Your task to perform on an android device: turn off translation in the chrome app Image 0: 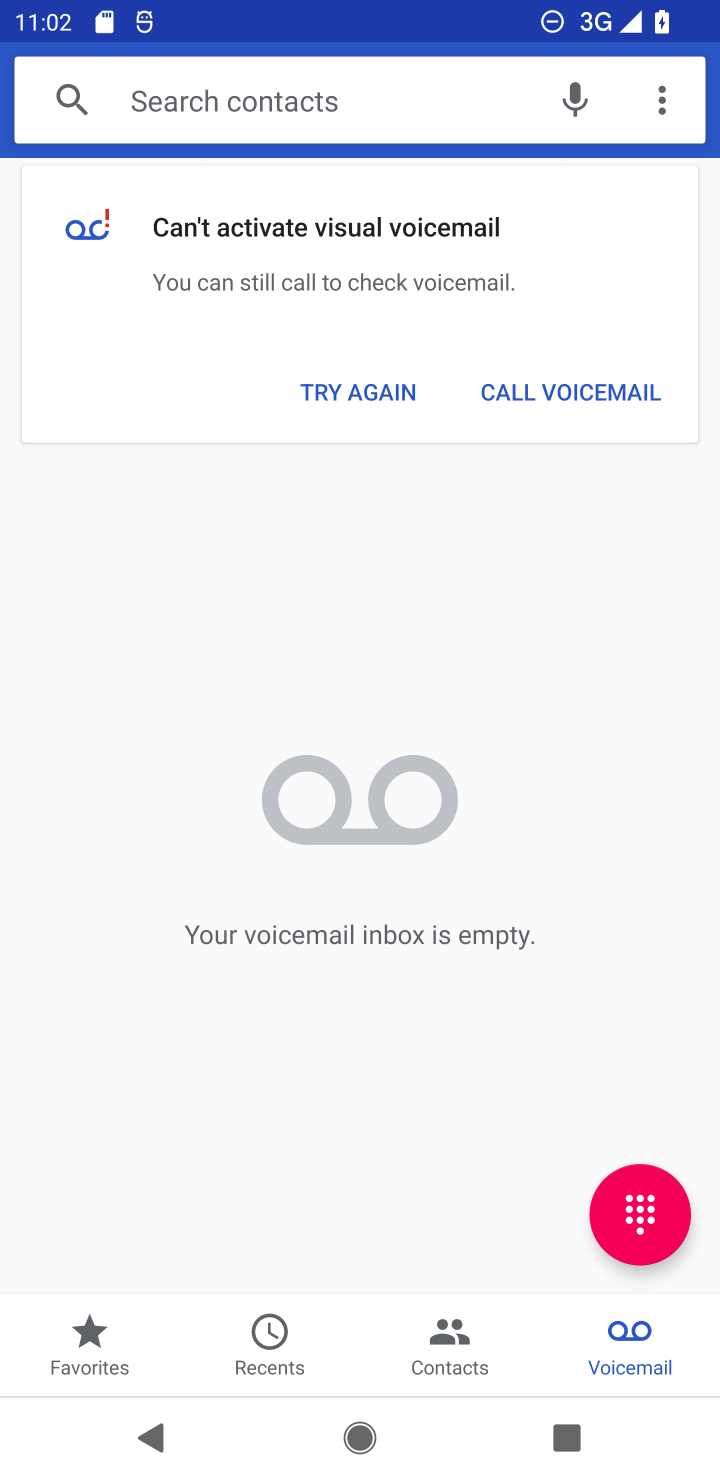
Step 0: press home button
Your task to perform on an android device: turn off translation in the chrome app Image 1: 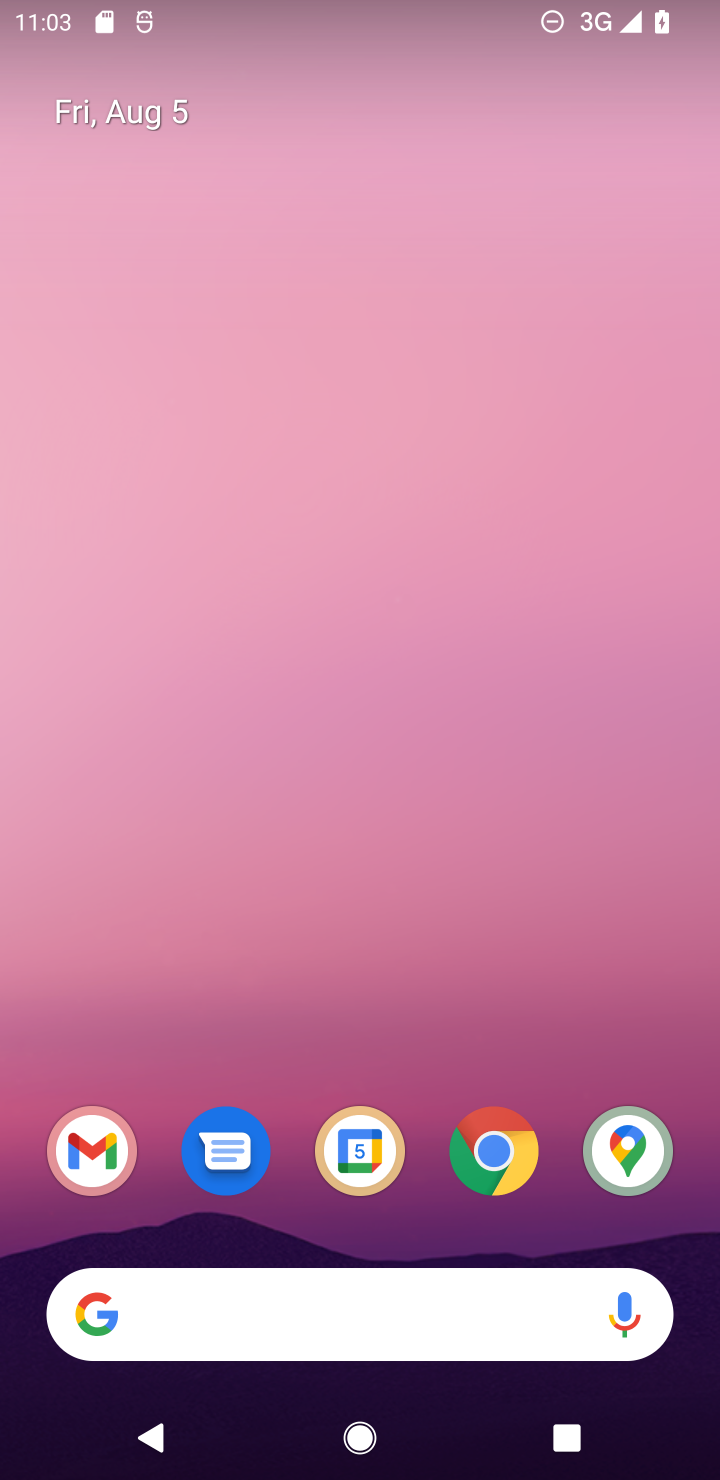
Step 1: click (491, 1156)
Your task to perform on an android device: turn off translation in the chrome app Image 2: 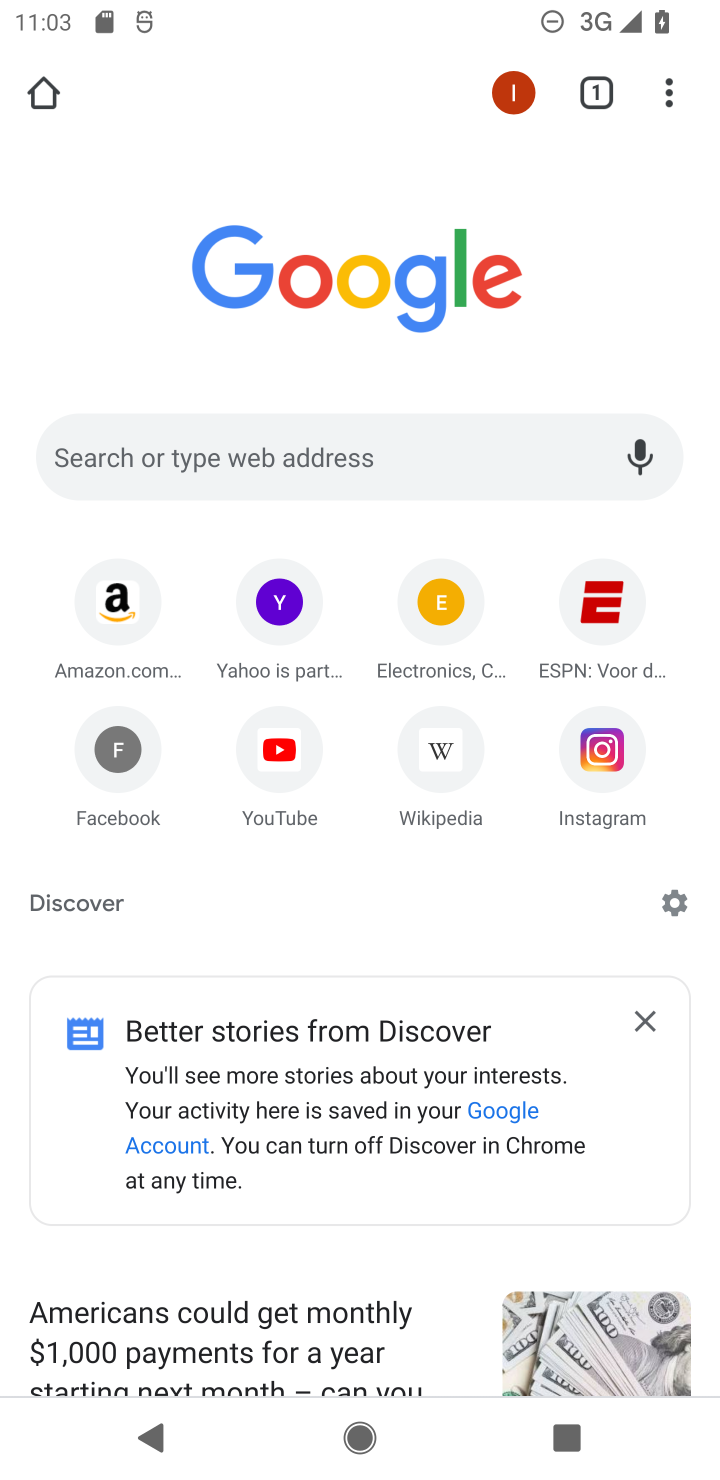
Step 2: click (677, 93)
Your task to perform on an android device: turn off translation in the chrome app Image 3: 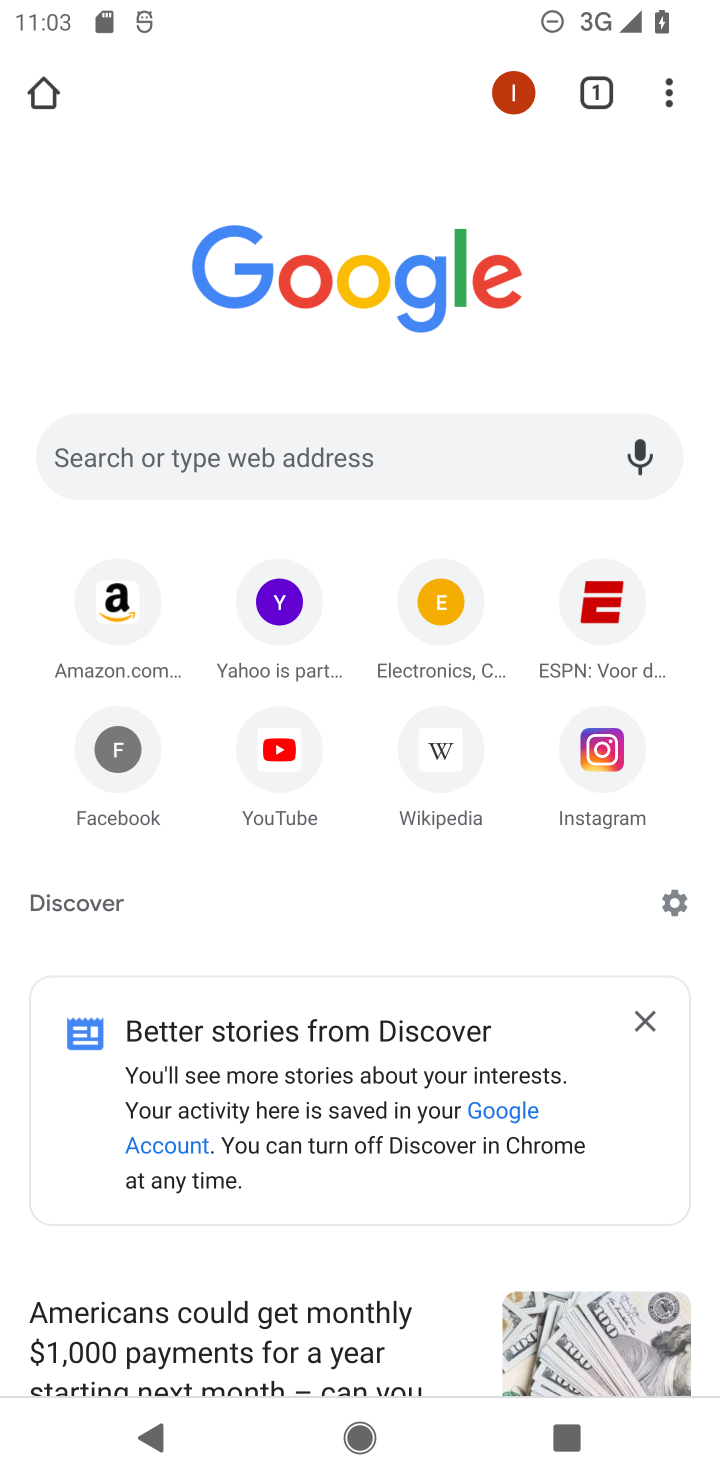
Step 3: click (677, 93)
Your task to perform on an android device: turn off translation in the chrome app Image 4: 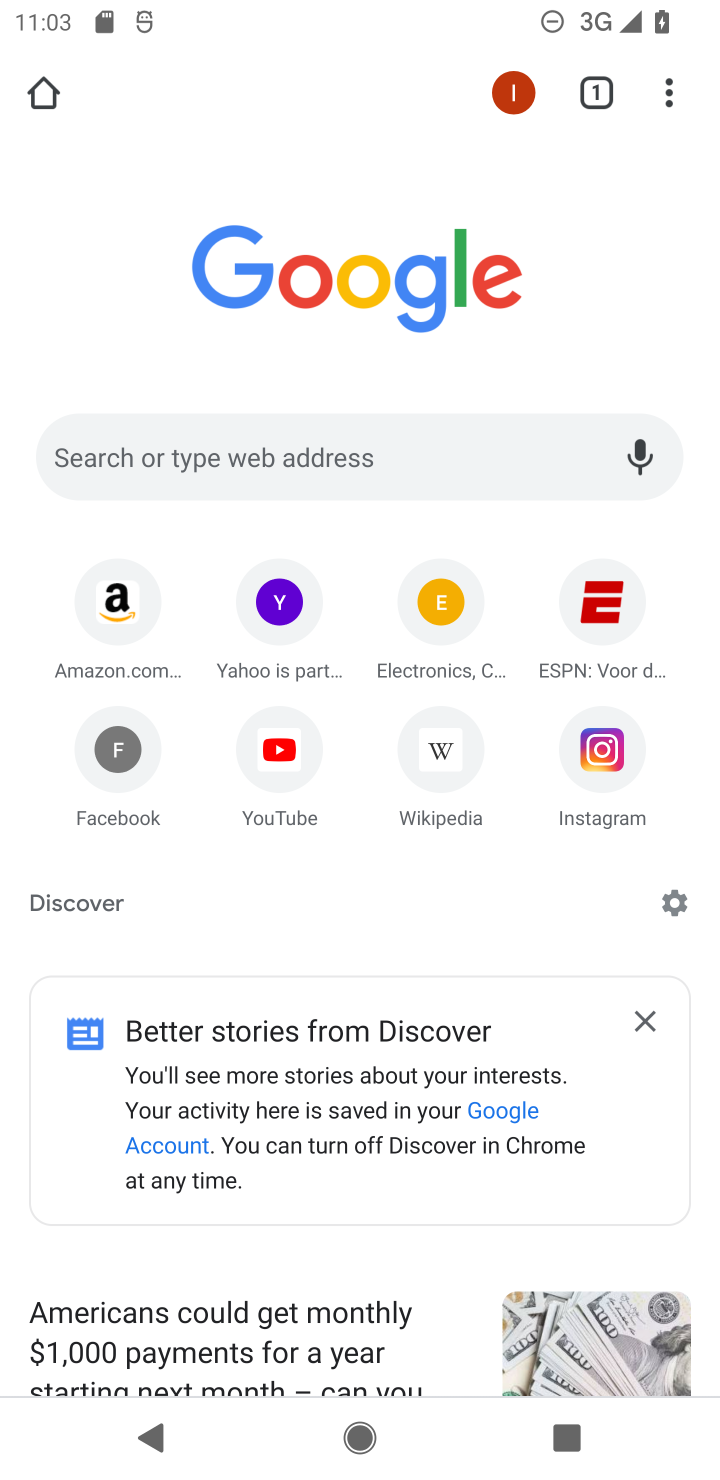
Step 4: click (666, 98)
Your task to perform on an android device: turn off translation in the chrome app Image 5: 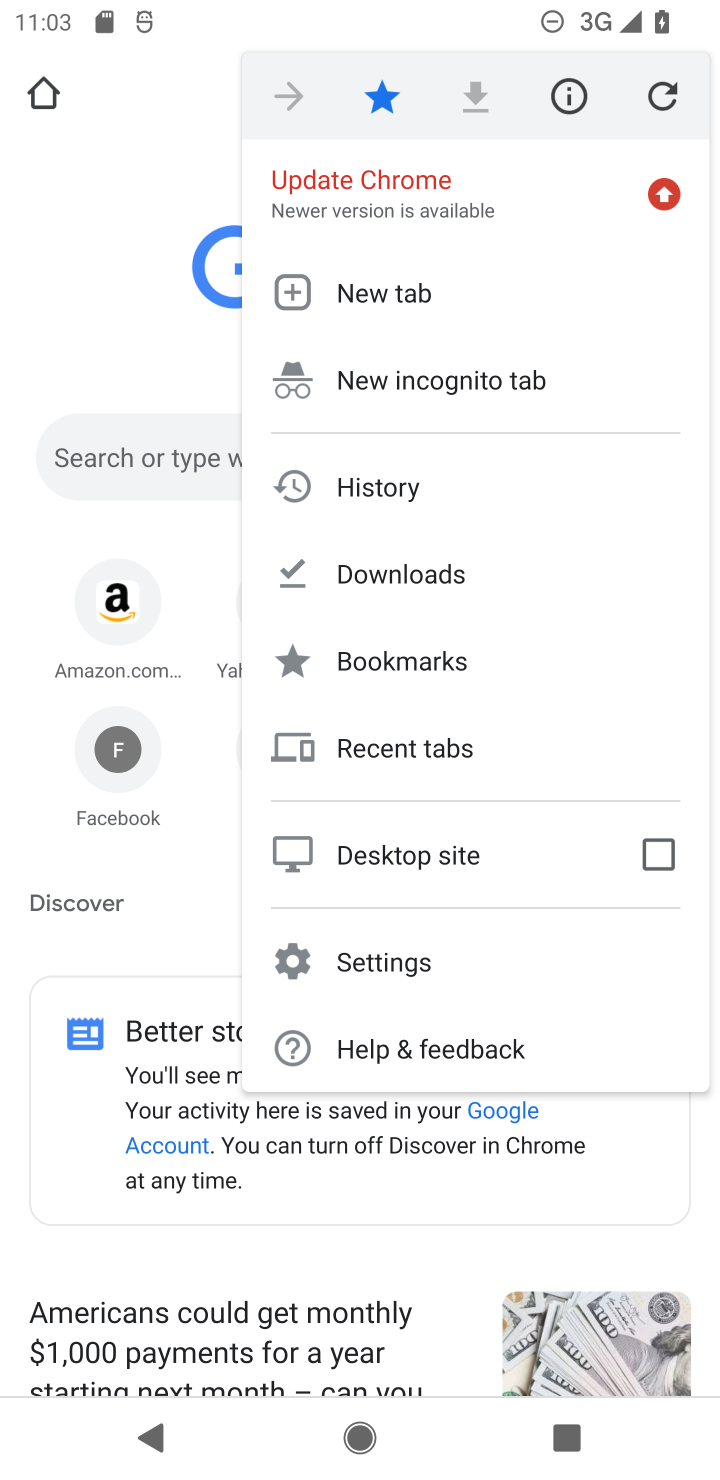
Step 5: click (360, 977)
Your task to perform on an android device: turn off translation in the chrome app Image 6: 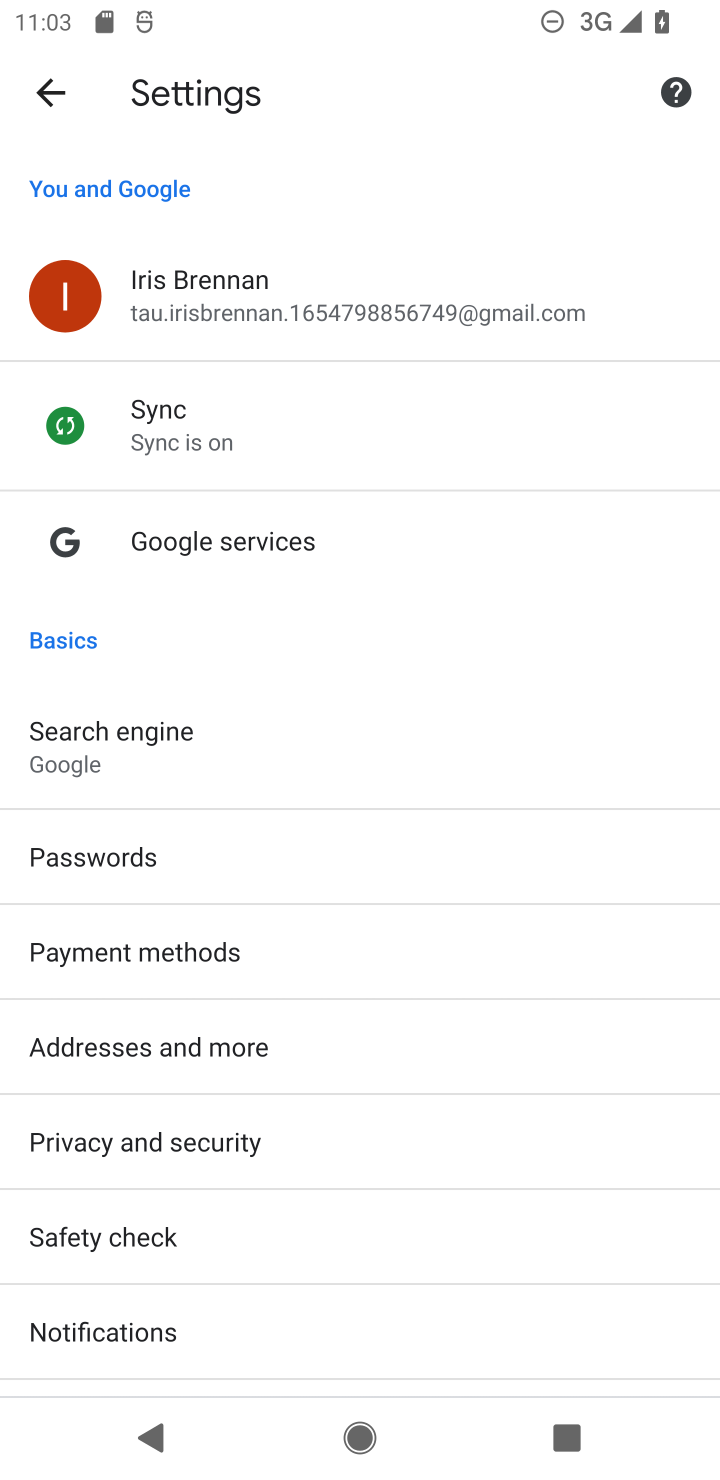
Step 6: drag from (190, 1196) to (221, 708)
Your task to perform on an android device: turn off translation in the chrome app Image 7: 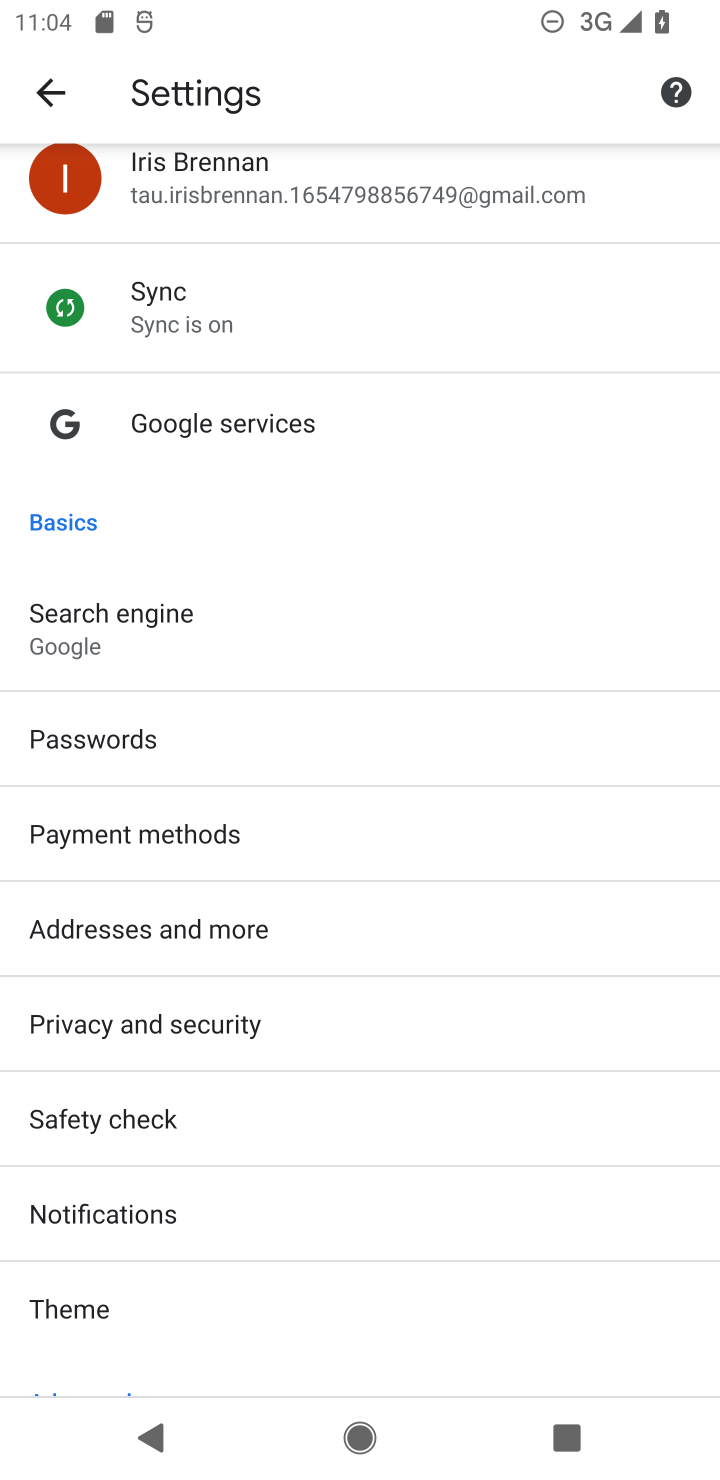
Step 7: drag from (170, 1229) to (233, 591)
Your task to perform on an android device: turn off translation in the chrome app Image 8: 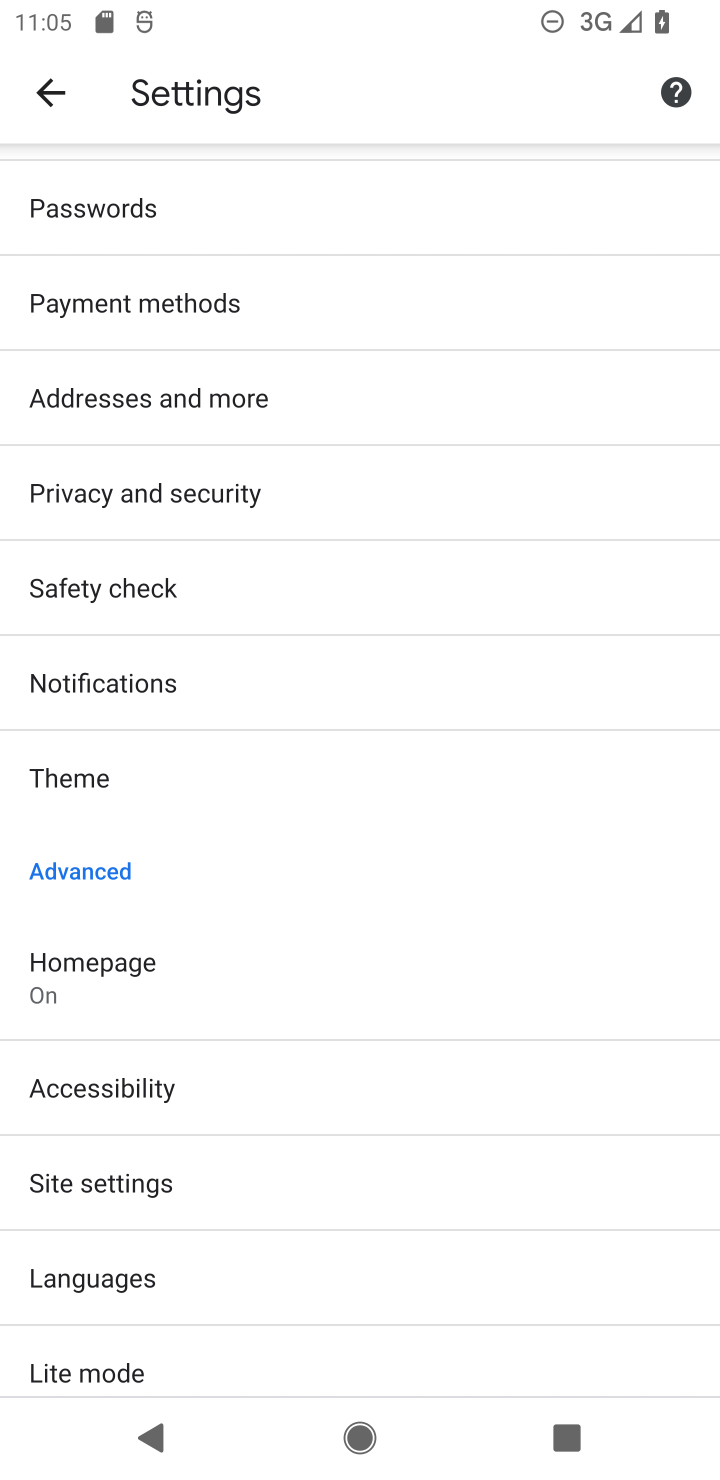
Step 8: click (145, 1195)
Your task to perform on an android device: turn off translation in the chrome app Image 9: 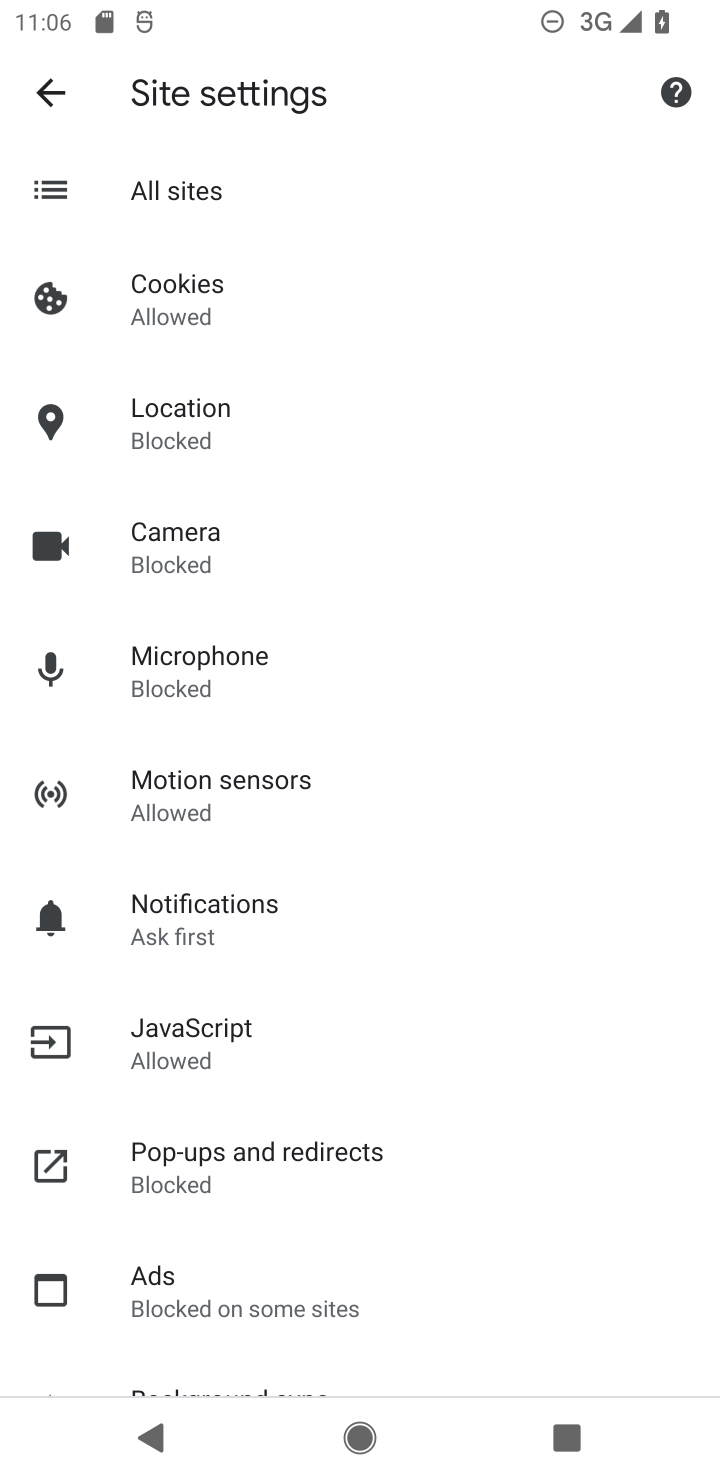
Step 9: drag from (277, 436) to (296, 336)
Your task to perform on an android device: turn off translation in the chrome app Image 10: 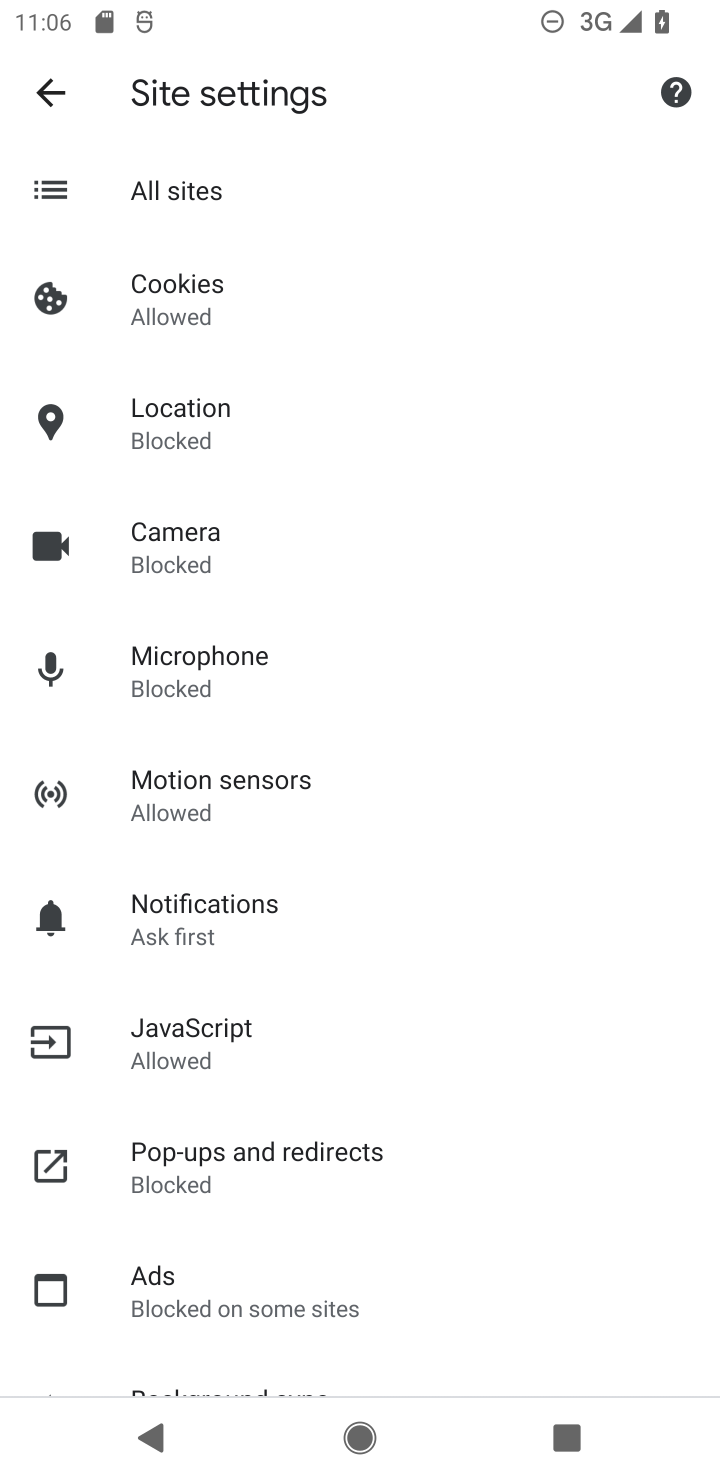
Step 10: drag from (290, 1082) to (351, 497)
Your task to perform on an android device: turn off translation in the chrome app Image 11: 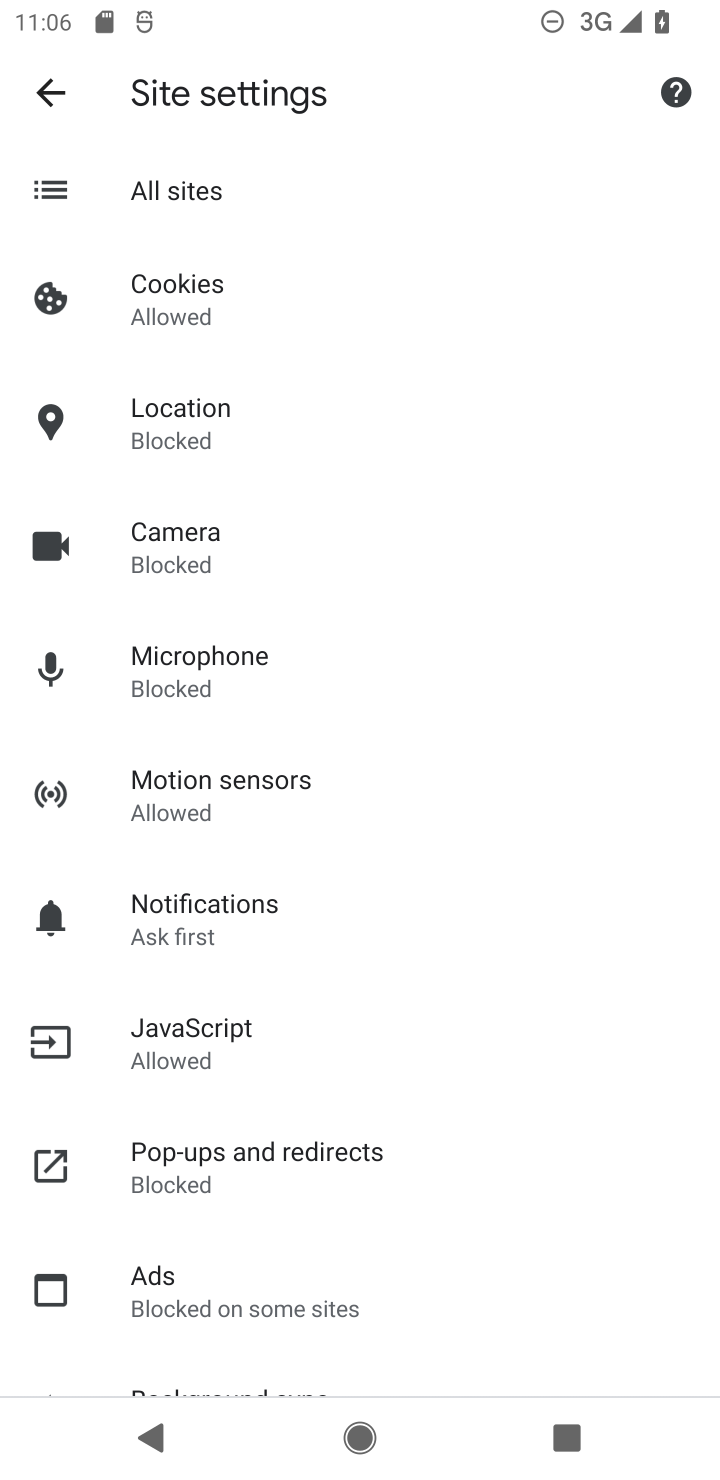
Step 11: drag from (220, 1076) to (220, 679)
Your task to perform on an android device: turn off translation in the chrome app Image 12: 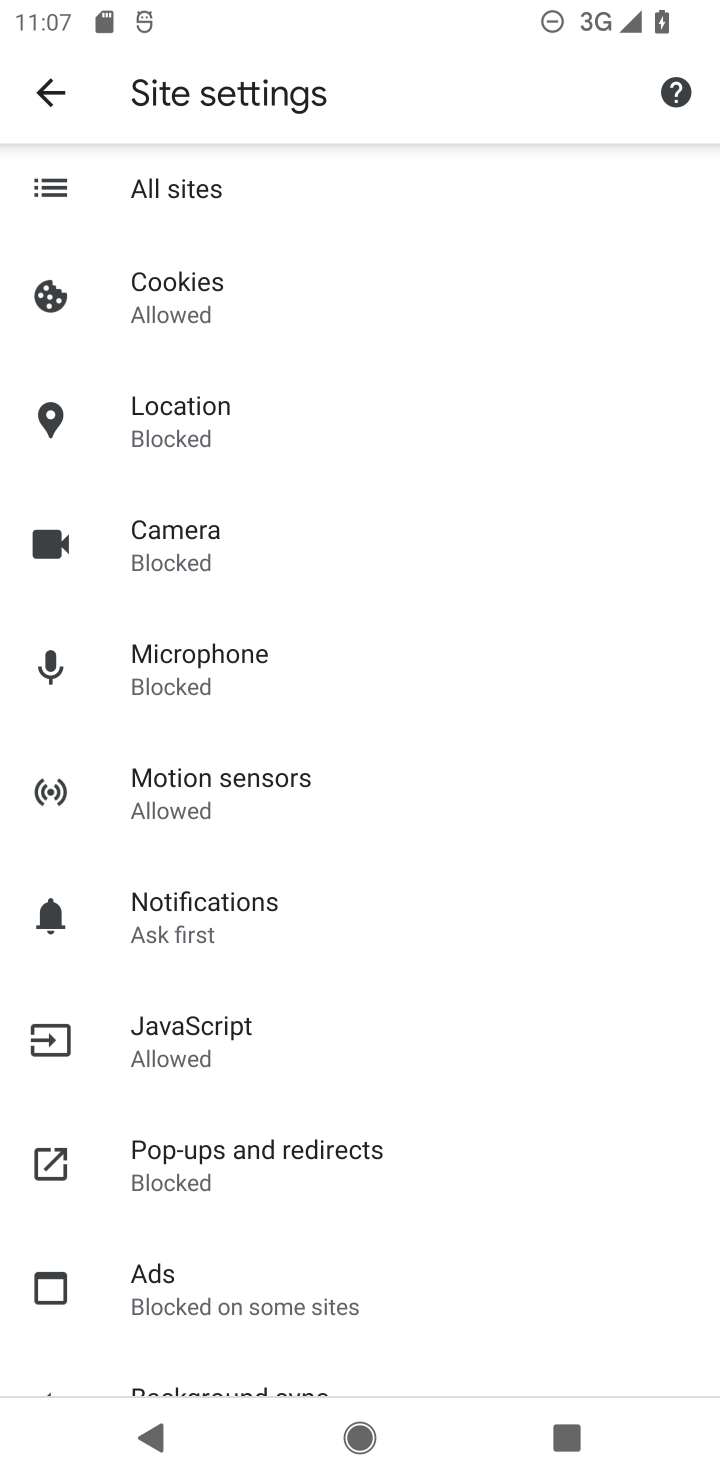
Step 12: click (54, 93)
Your task to perform on an android device: turn off translation in the chrome app Image 13: 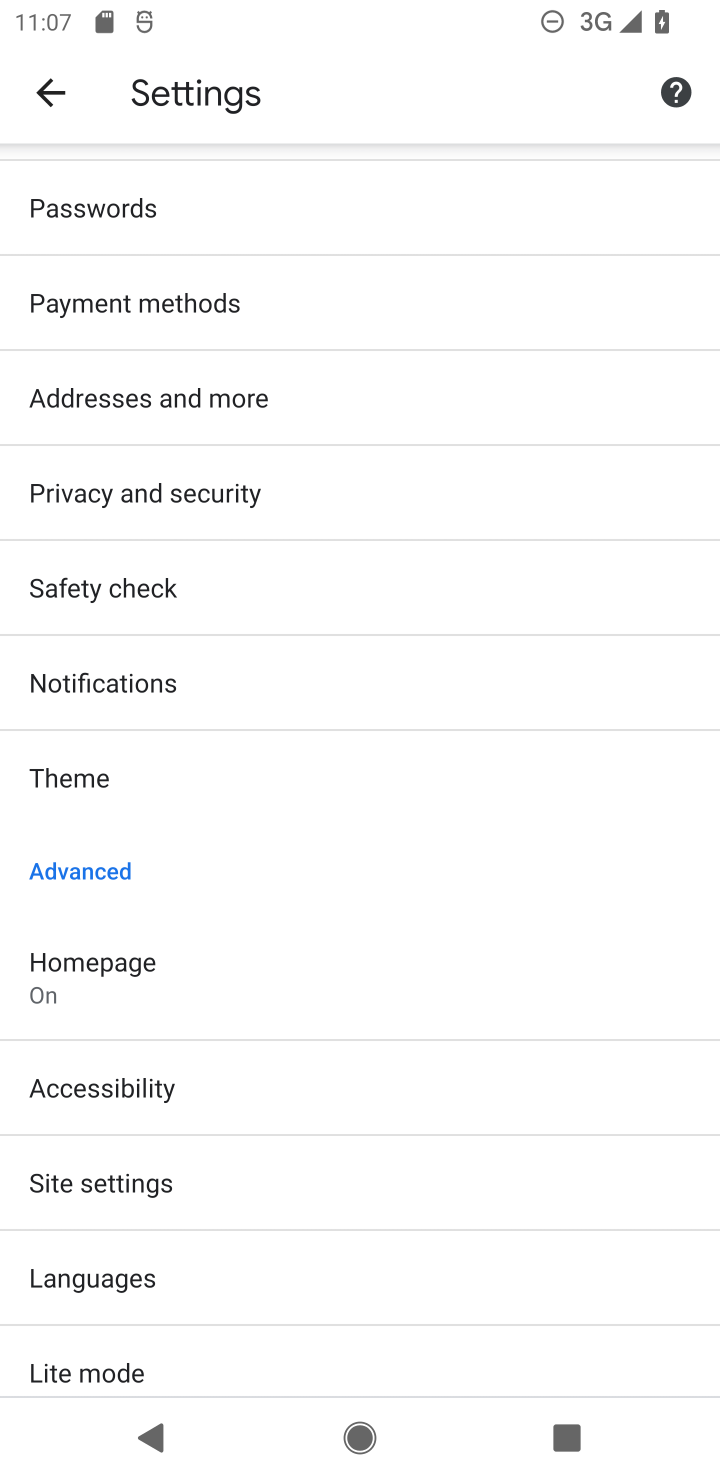
Step 13: click (91, 1194)
Your task to perform on an android device: turn off translation in the chrome app Image 14: 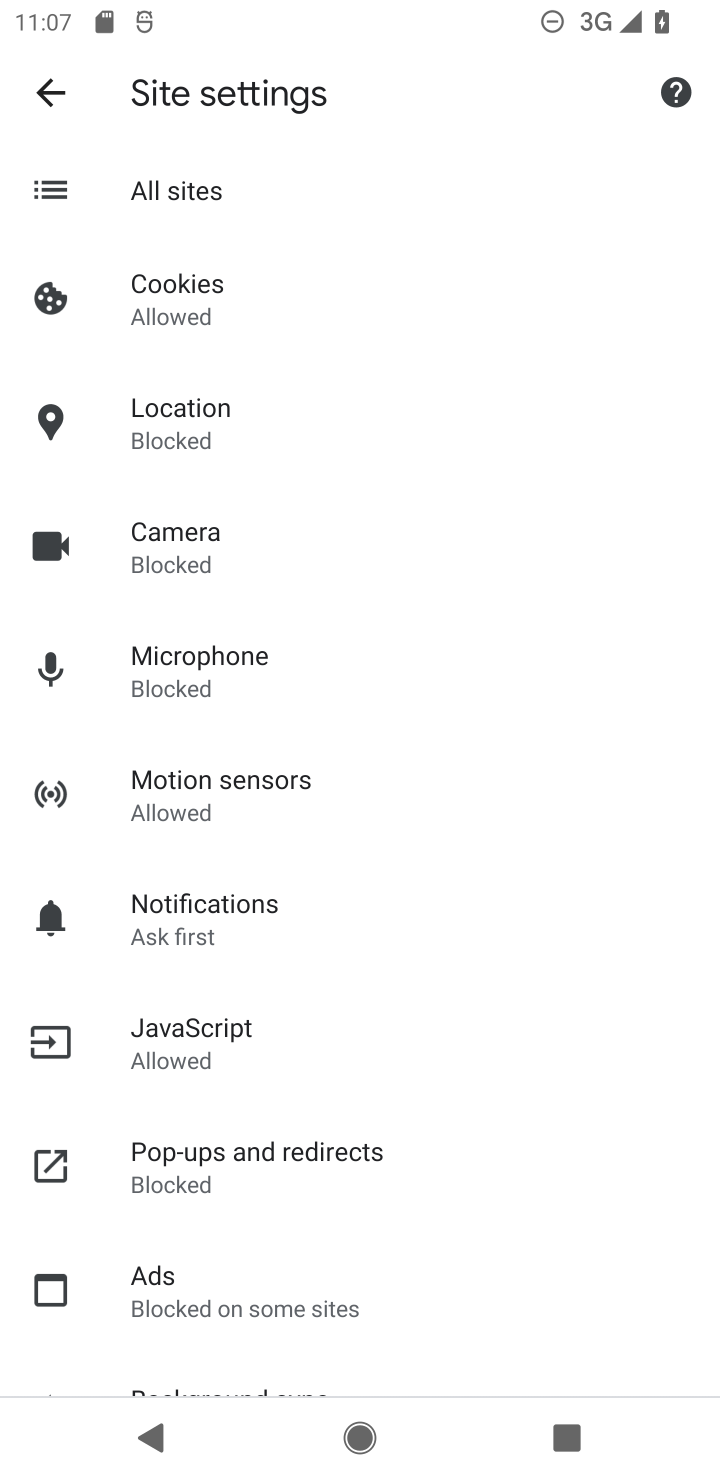
Step 14: drag from (293, 1101) to (293, 563)
Your task to perform on an android device: turn off translation in the chrome app Image 15: 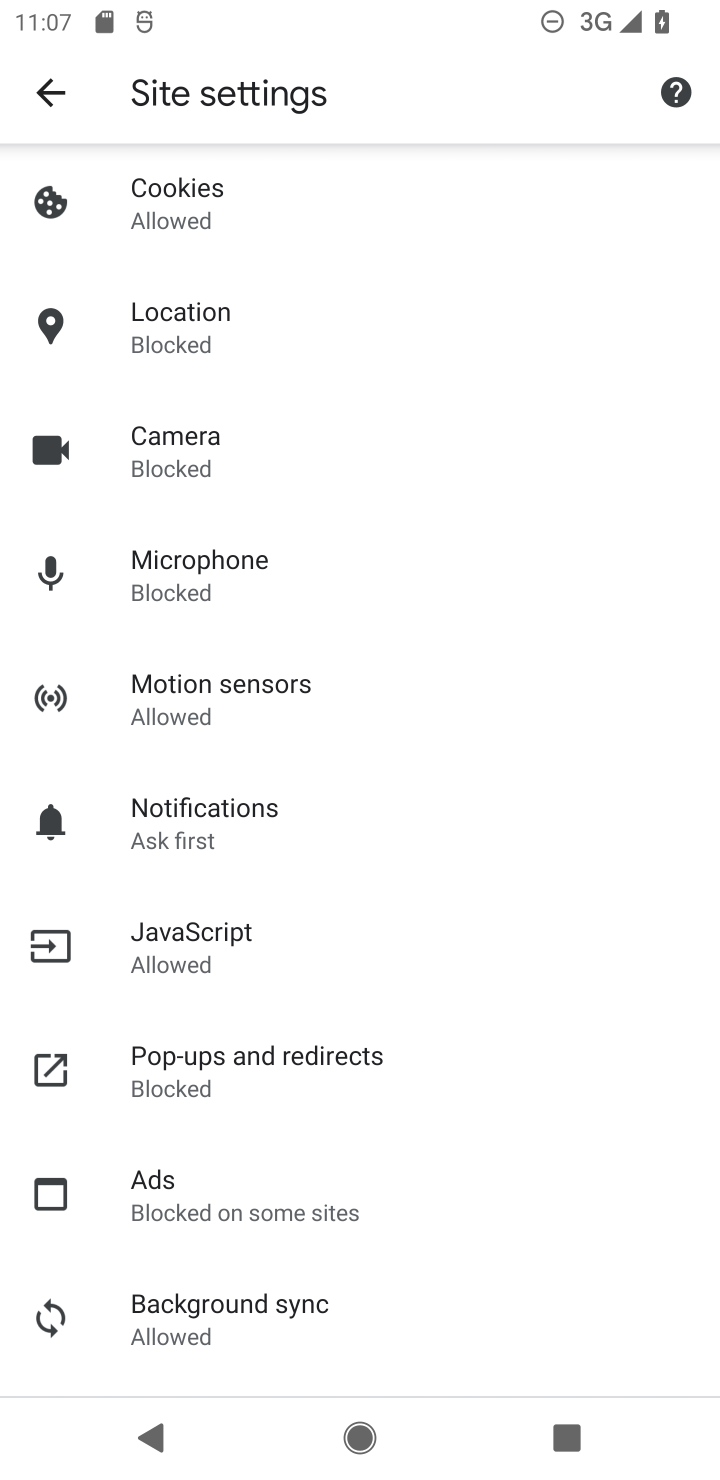
Step 15: drag from (385, 686) to (461, 137)
Your task to perform on an android device: turn off translation in the chrome app Image 16: 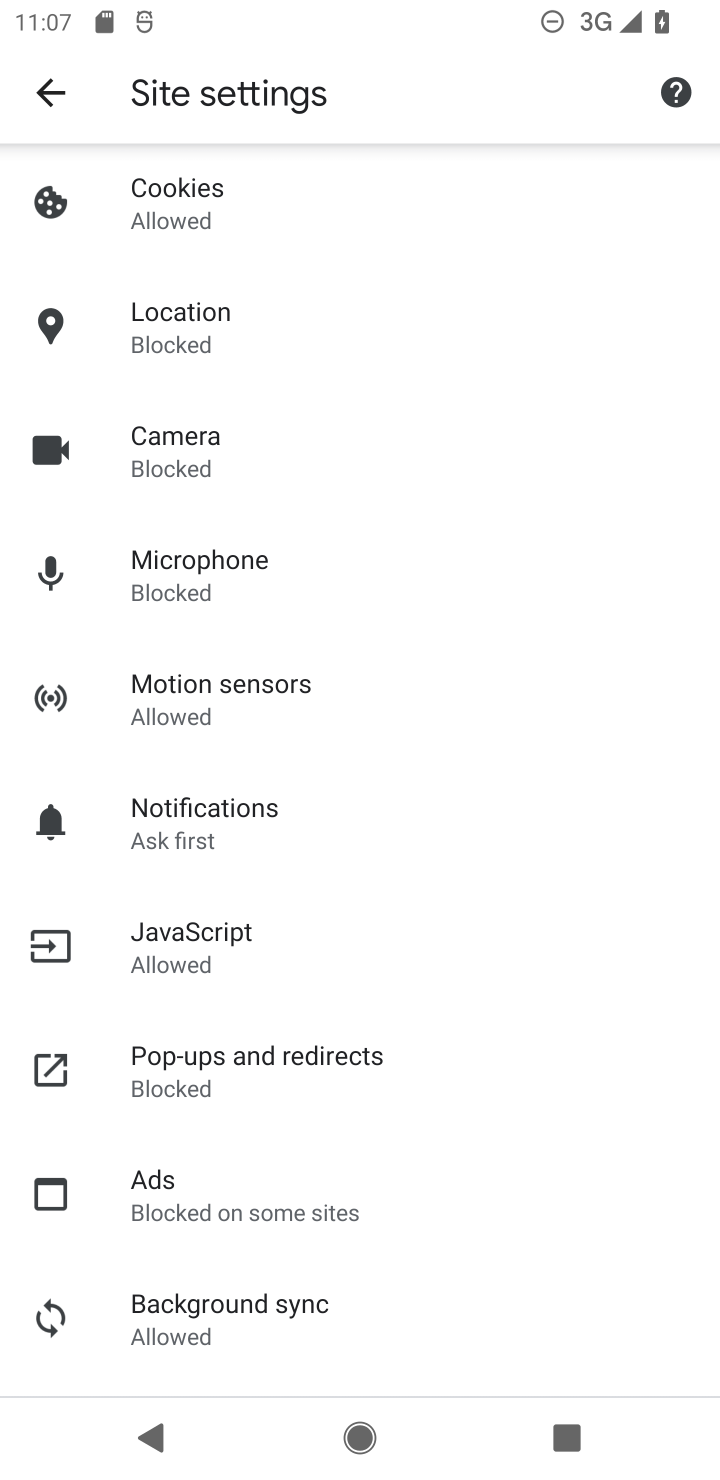
Step 16: drag from (446, 1157) to (447, 499)
Your task to perform on an android device: turn off translation in the chrome app Image 17: 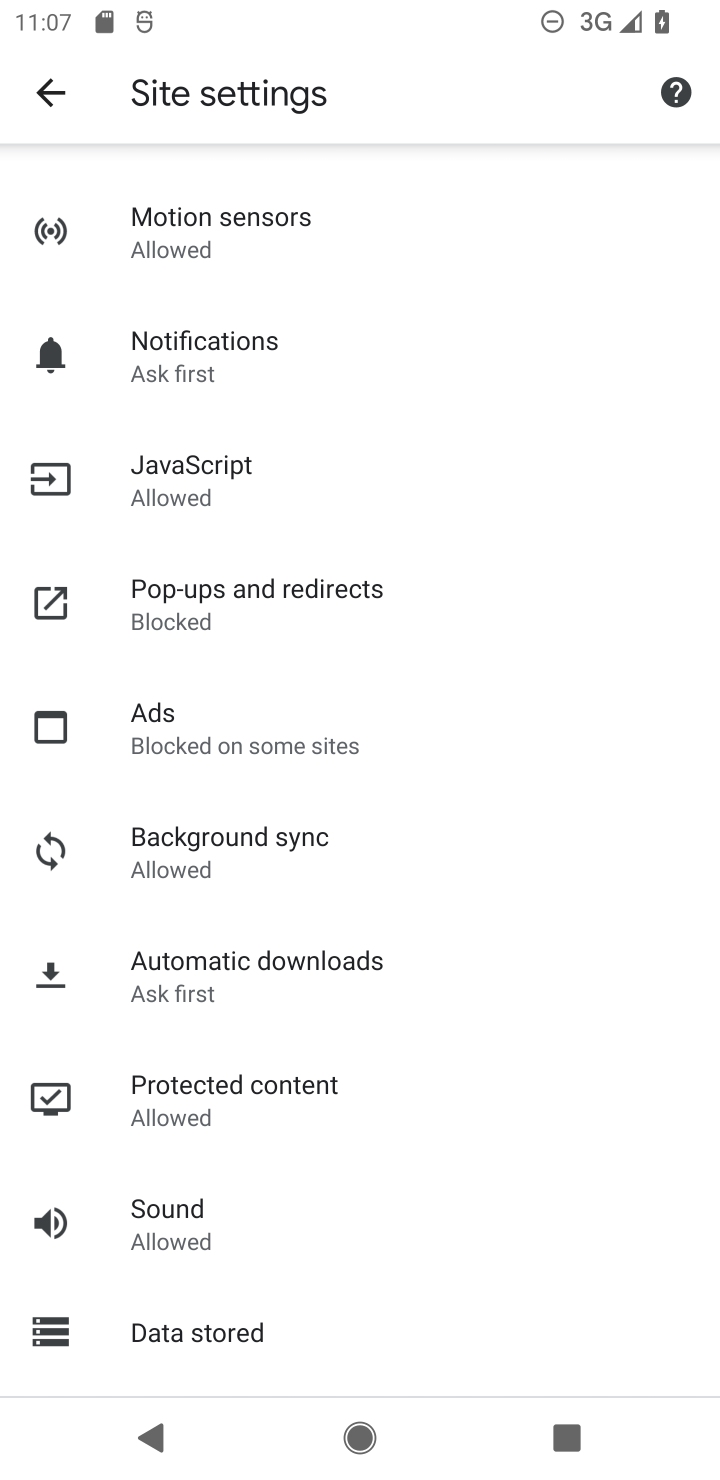
Step 17: press home button
Your task to perform on an android device: turn off translation in the chrome app Image 18: 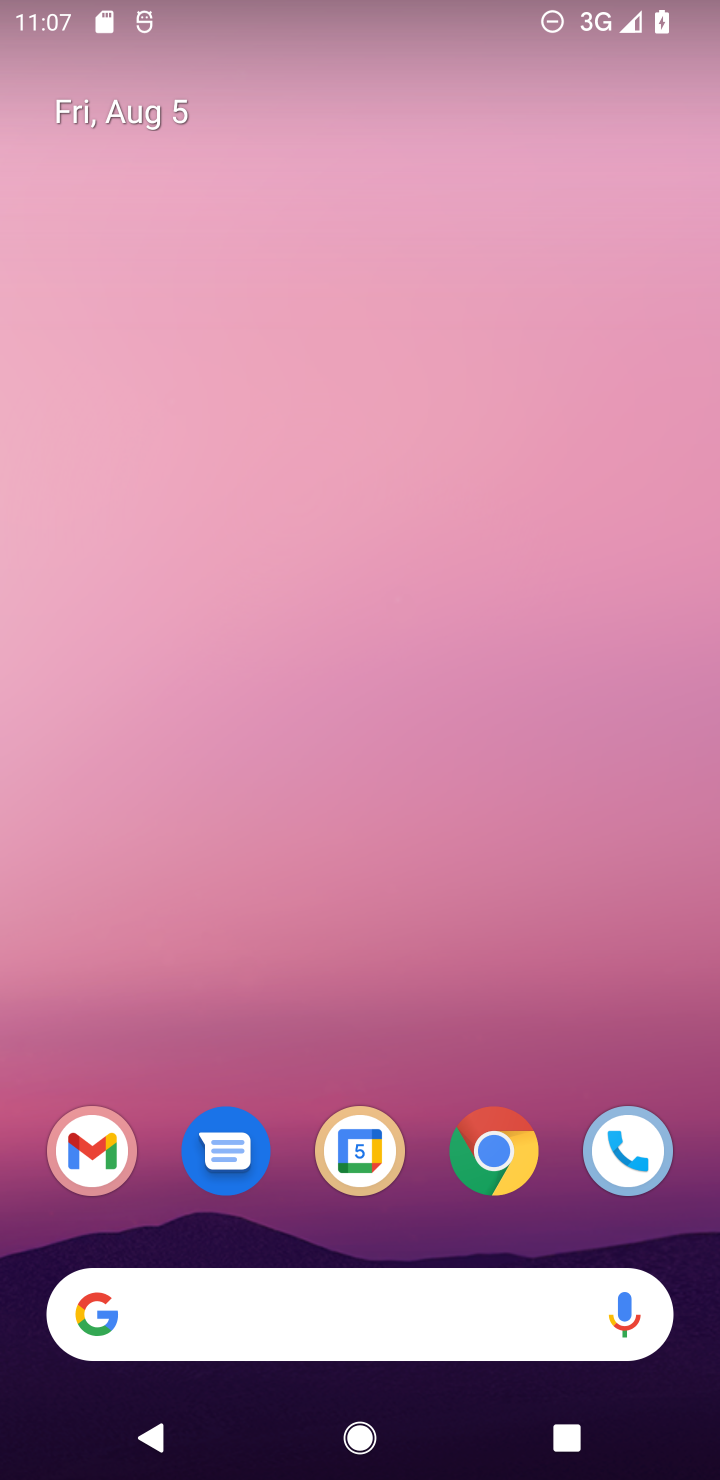
Step 18: click (484, 1157)
Your task to perform on an android device: turn off translation in the chrome app Image 19: 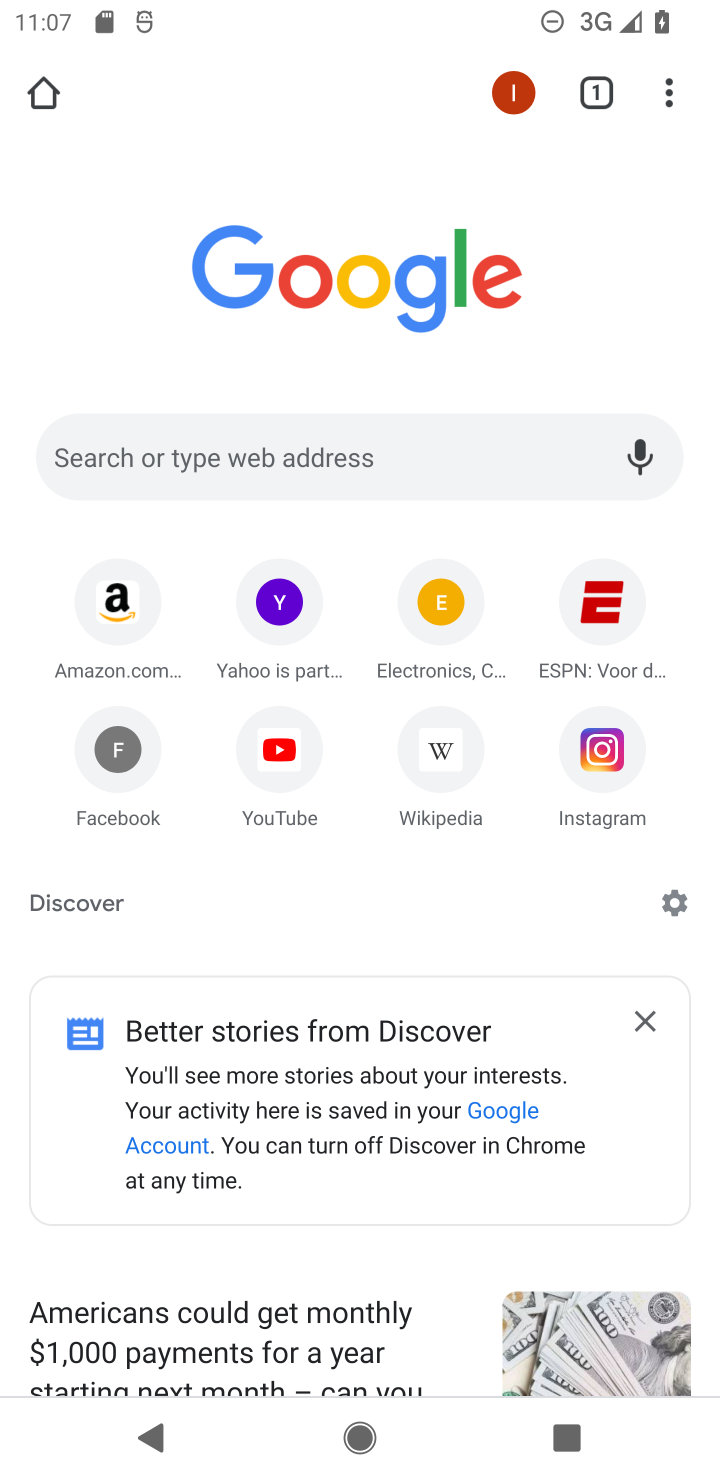
Step 19: click (676, 98)
Your task to perform on an android device: turn off translation in the chrome app Image 20: 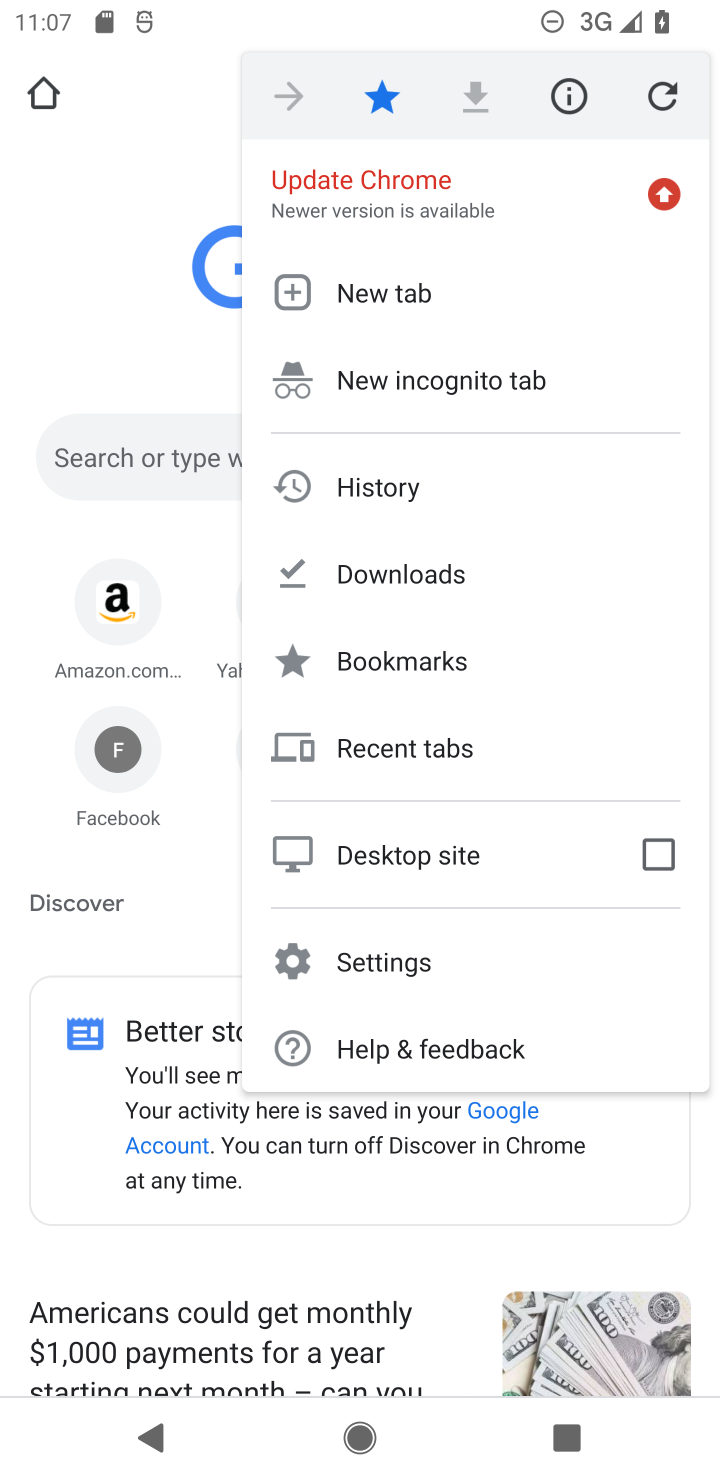
Step 20: click (394, 960)
Your task to perform on an android device: turn off translation in the chrome app Image 21: 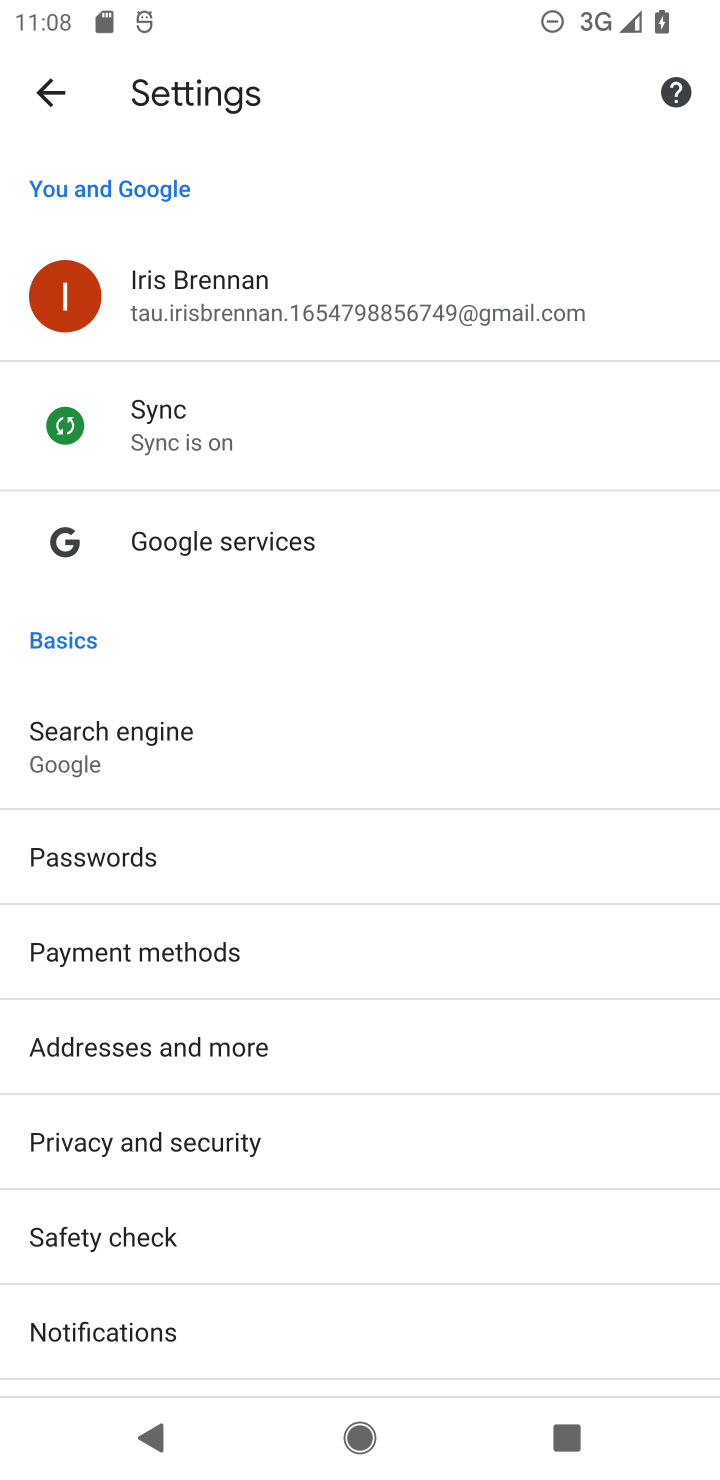
Step 21: drag from (177, 1253) to (315, 495)
Your task to perform on an android device: turn off translation in the chrome app Image 22: 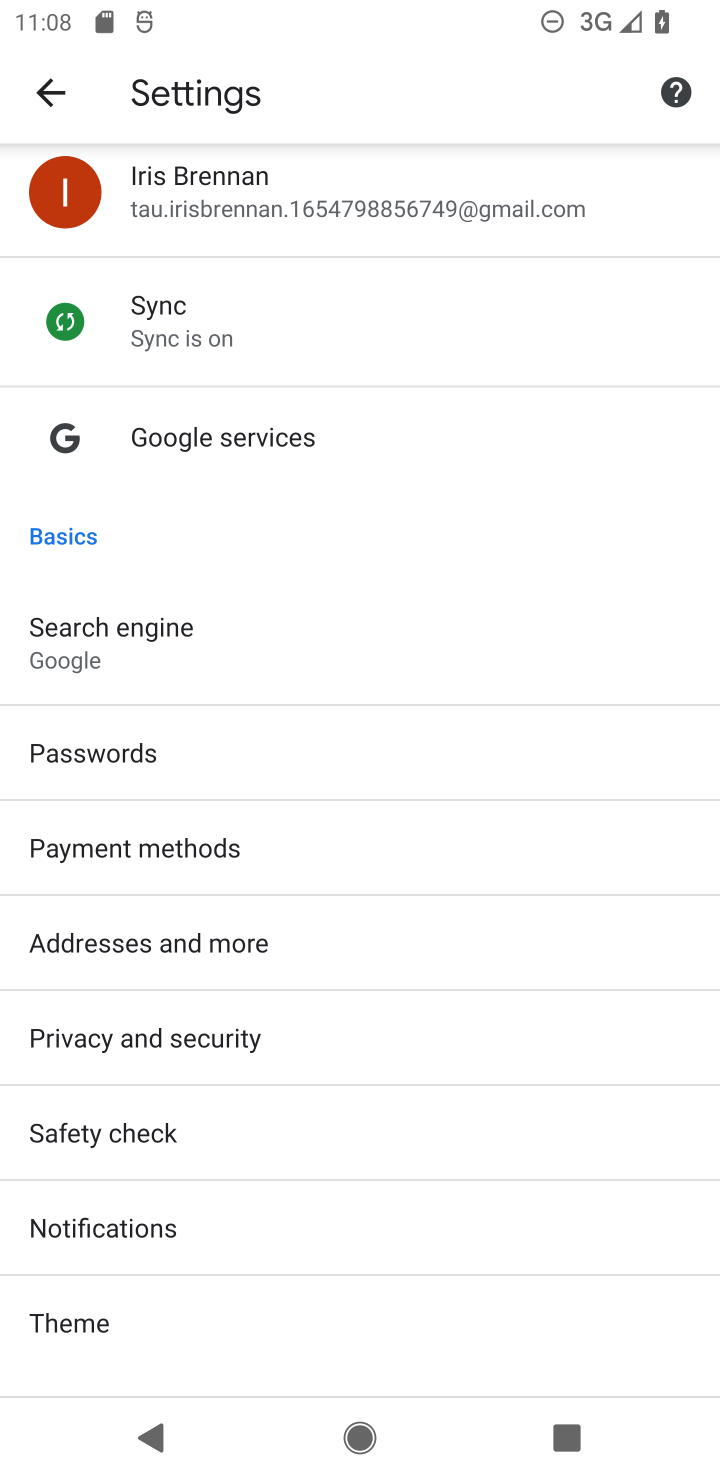
Step 22: drag from (218, 1047) to (351, 362)
Your task to perform on an android device: turn off translation in the chrome app Image 23: 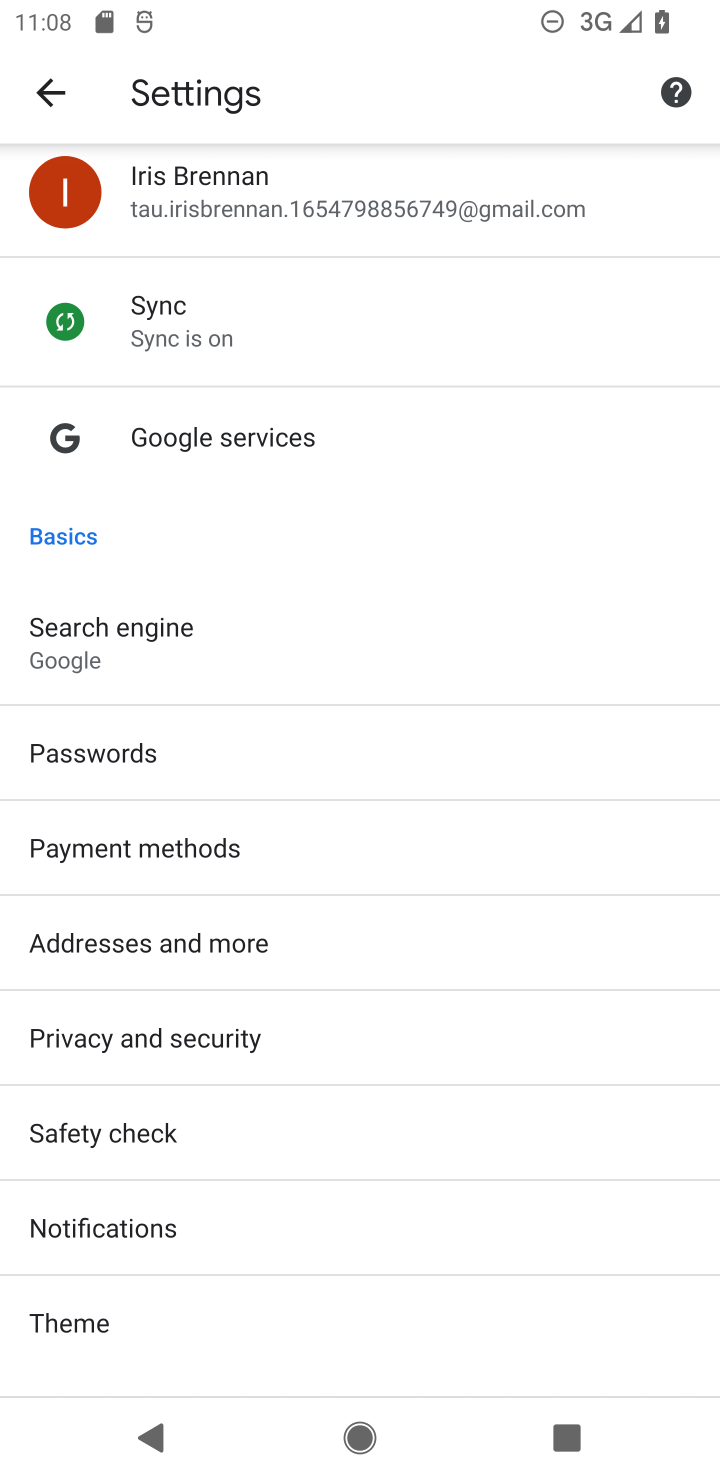
Step 23: drag from (209, 998) to (203, 640)
Your task to perform on an android device: turn off translation in the chrome app Image 24: 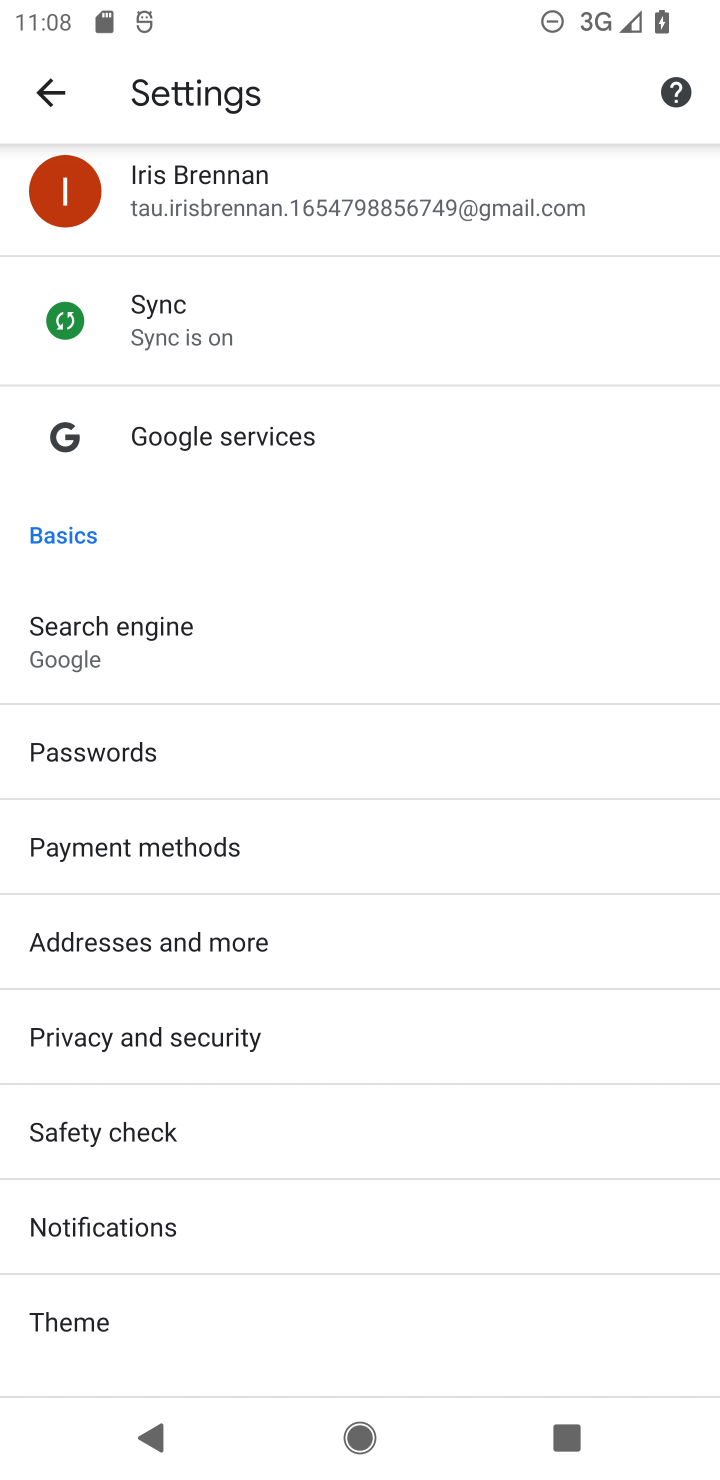
Step 24: drag from (111, 1242) to (151, 588)
Your task to perform on an android device: turn off translation in the chrome app Image 25: 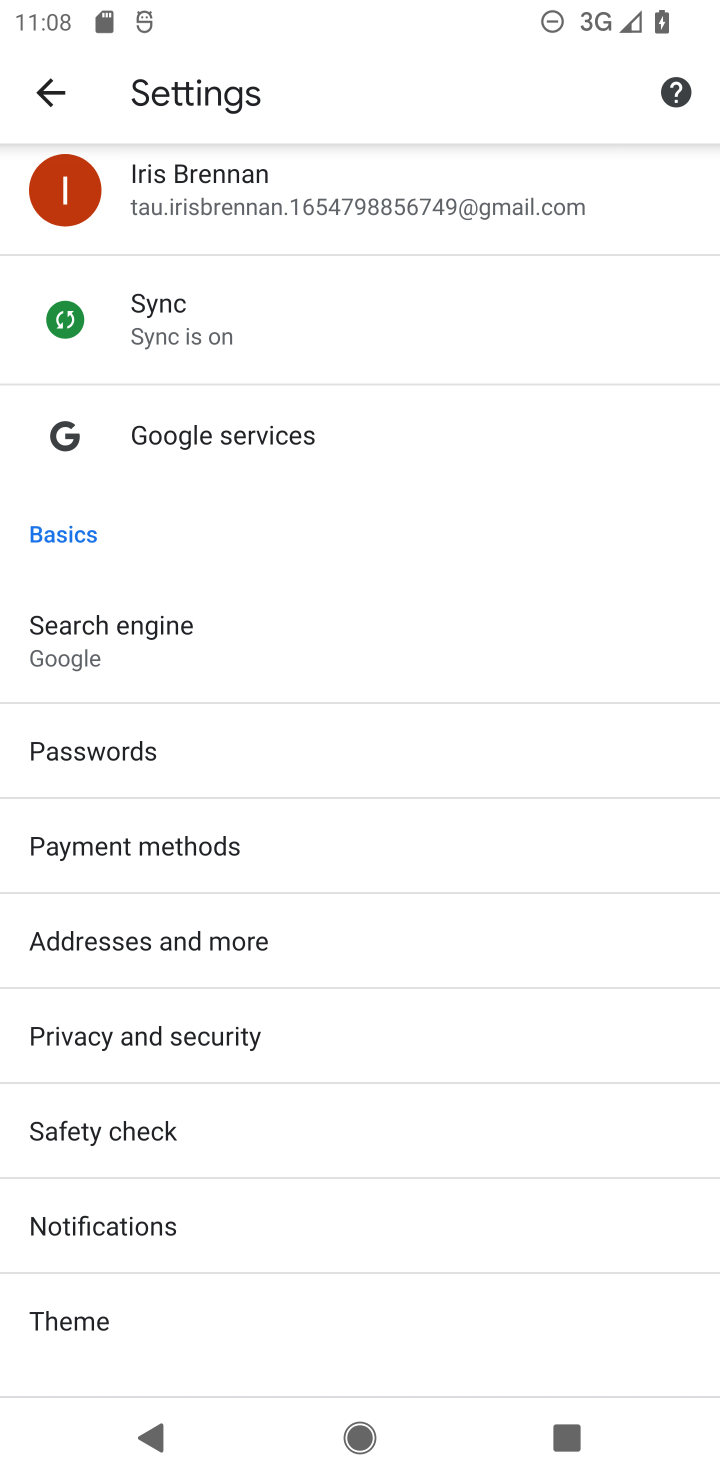
Step 25: drag from (219, 743) to (239, 595)
Your task to perform on an android device: turn off translation in the chrome app Image 26: 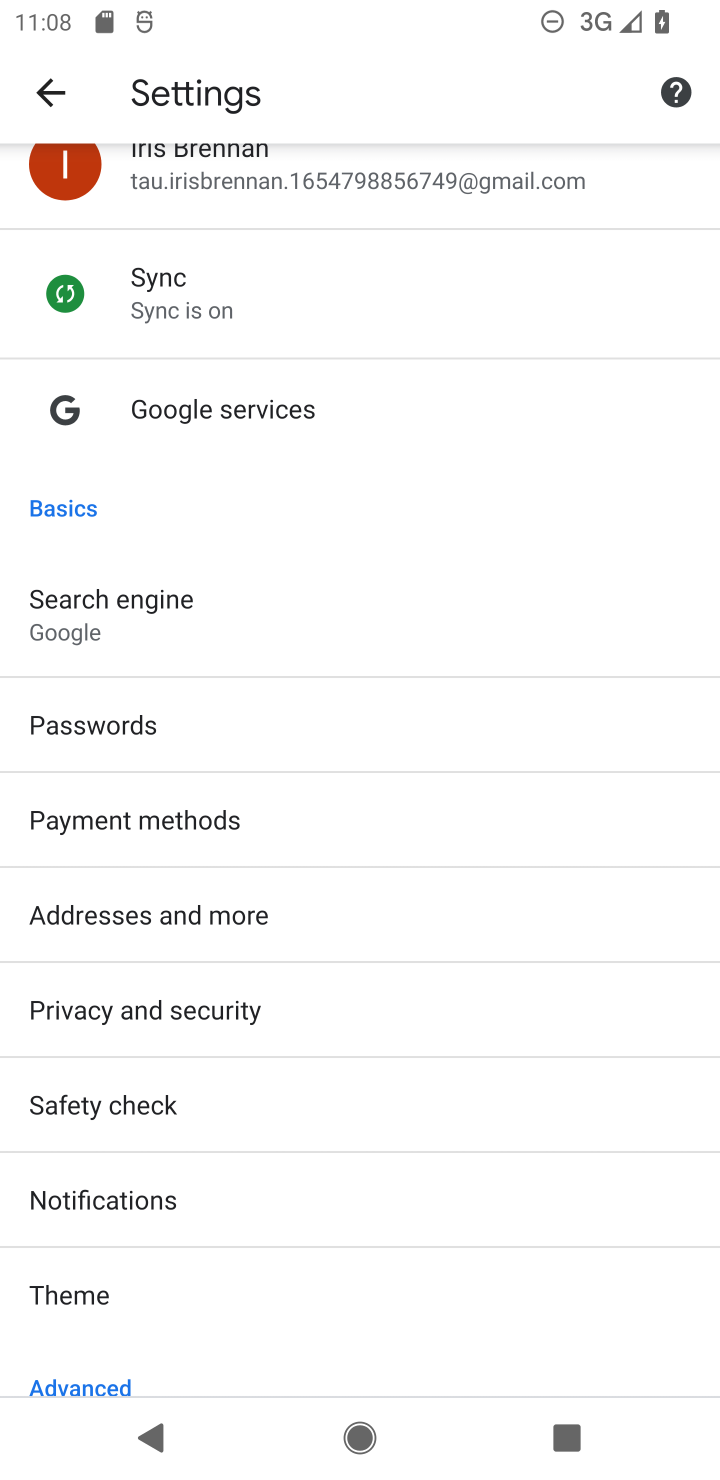
Step 26: drag from (126, 1178) to (145, 432)
Your task to perform on an android device: turn off translation in the chrome app Image 27: 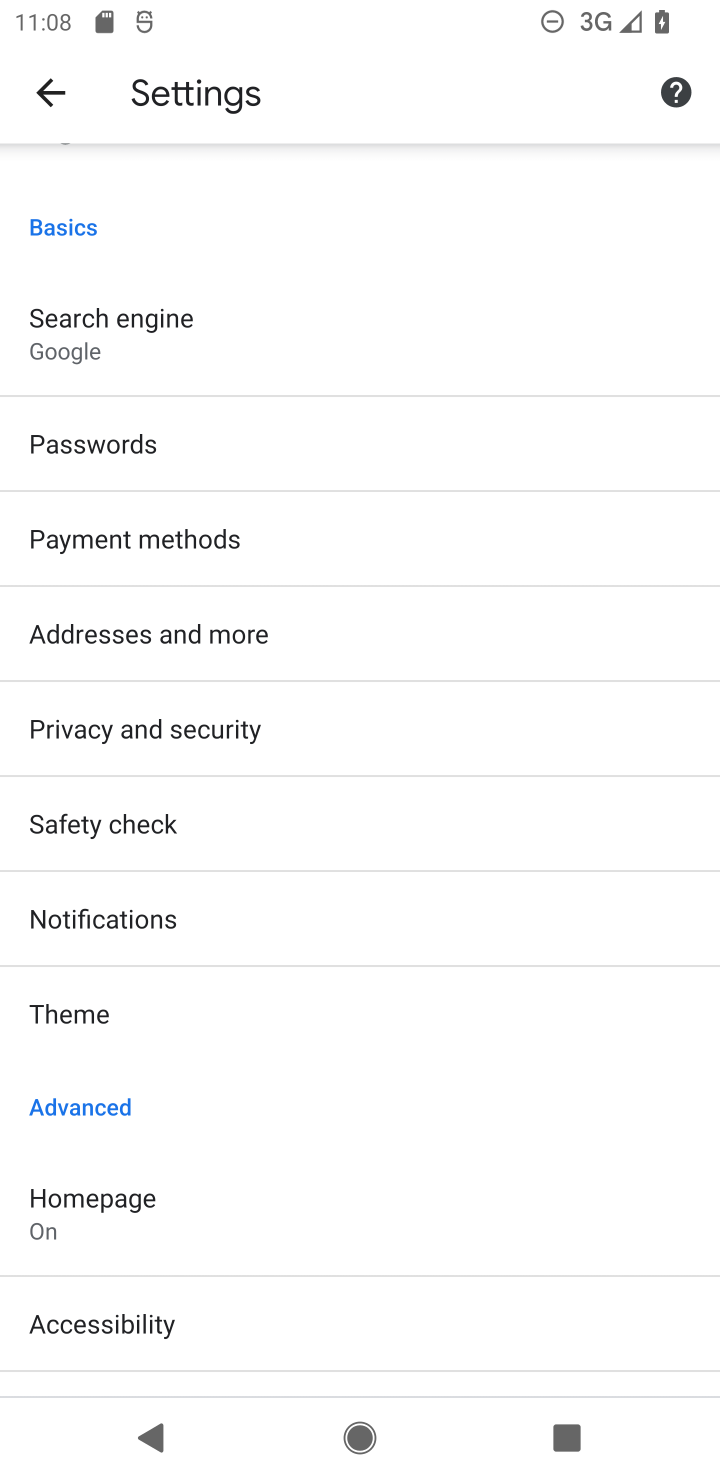
Step 27: drag from (219, 1291) to (365, 563)
Your task to perform on an android device: turn off translation in the chrome app Image 28: 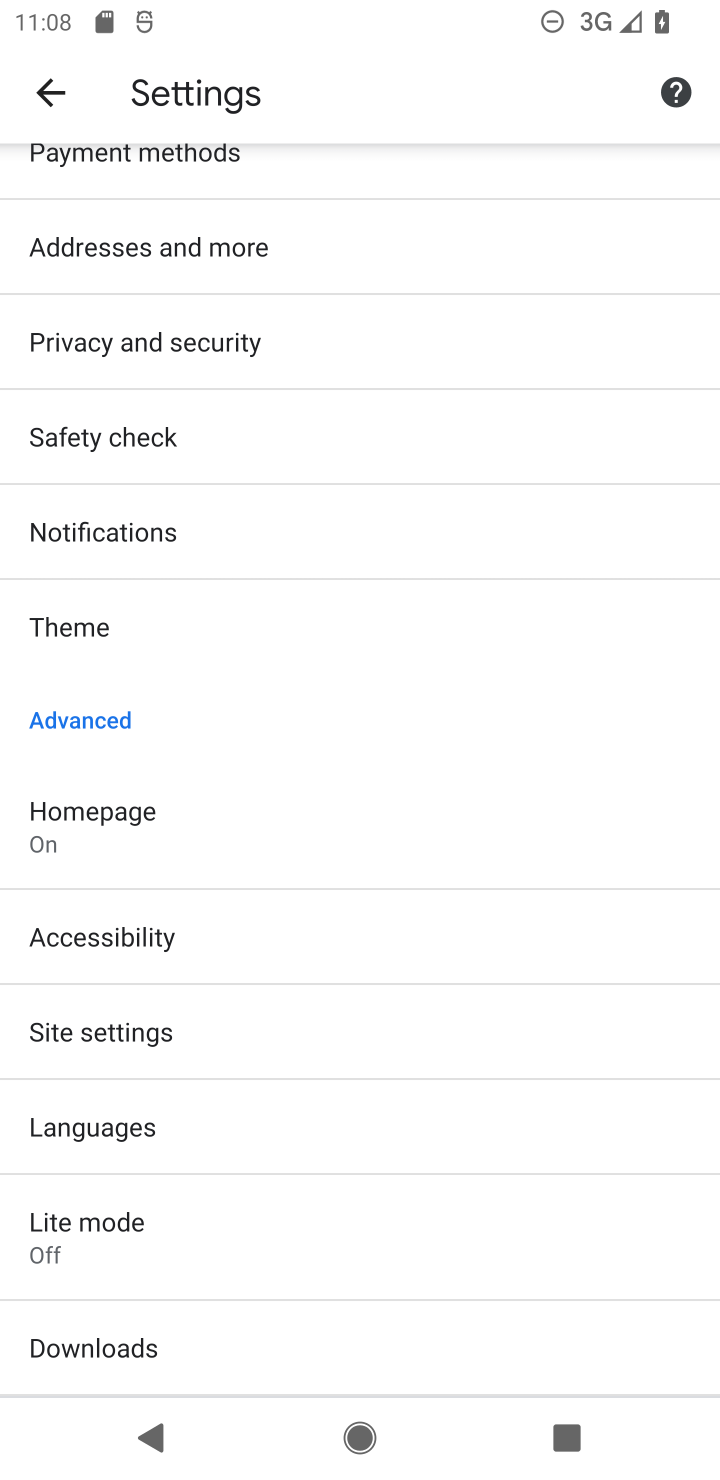
Step 28: click (54, 1125)
Your task to perform on an android device: turn off translation in the chrome app Image 29: 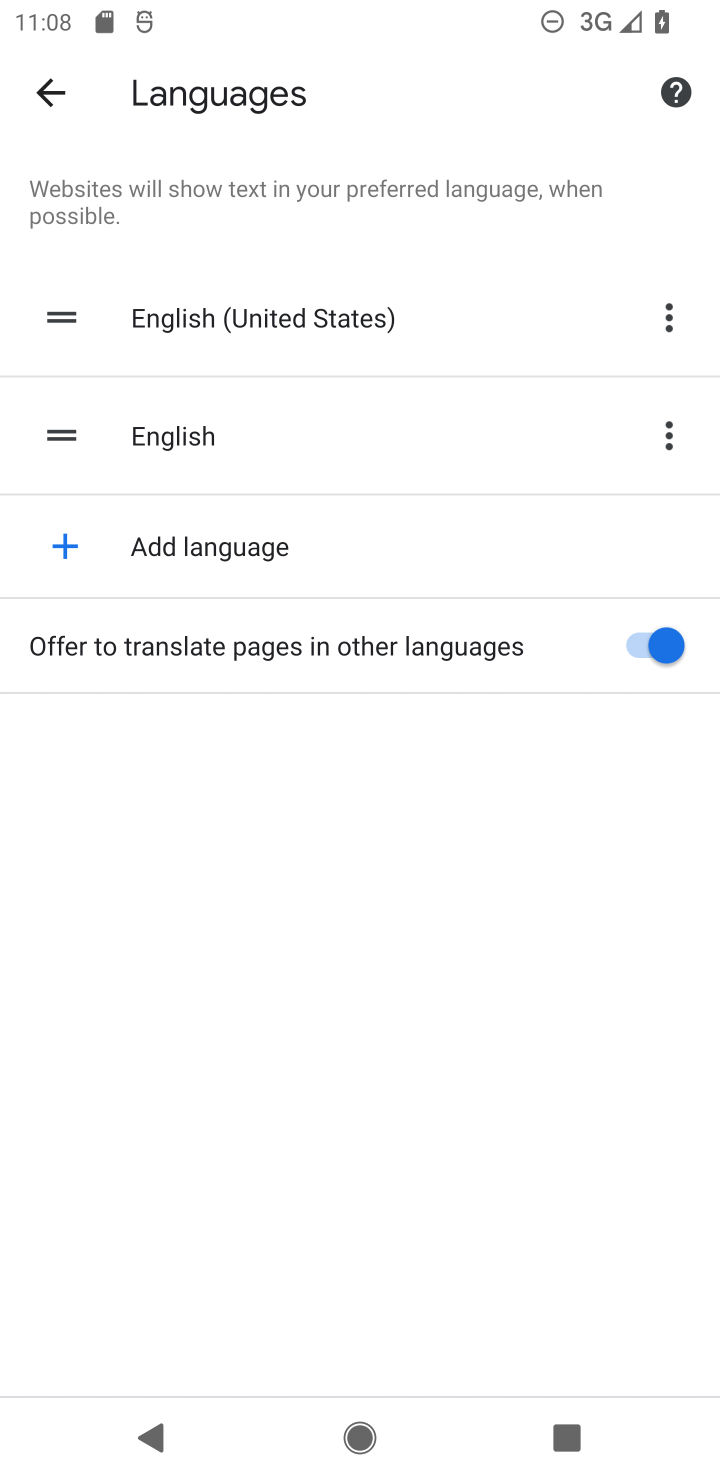
Step 29: click (642, 650)
Your task to perform on an android device: turn off translation in the chrome app Image 30: 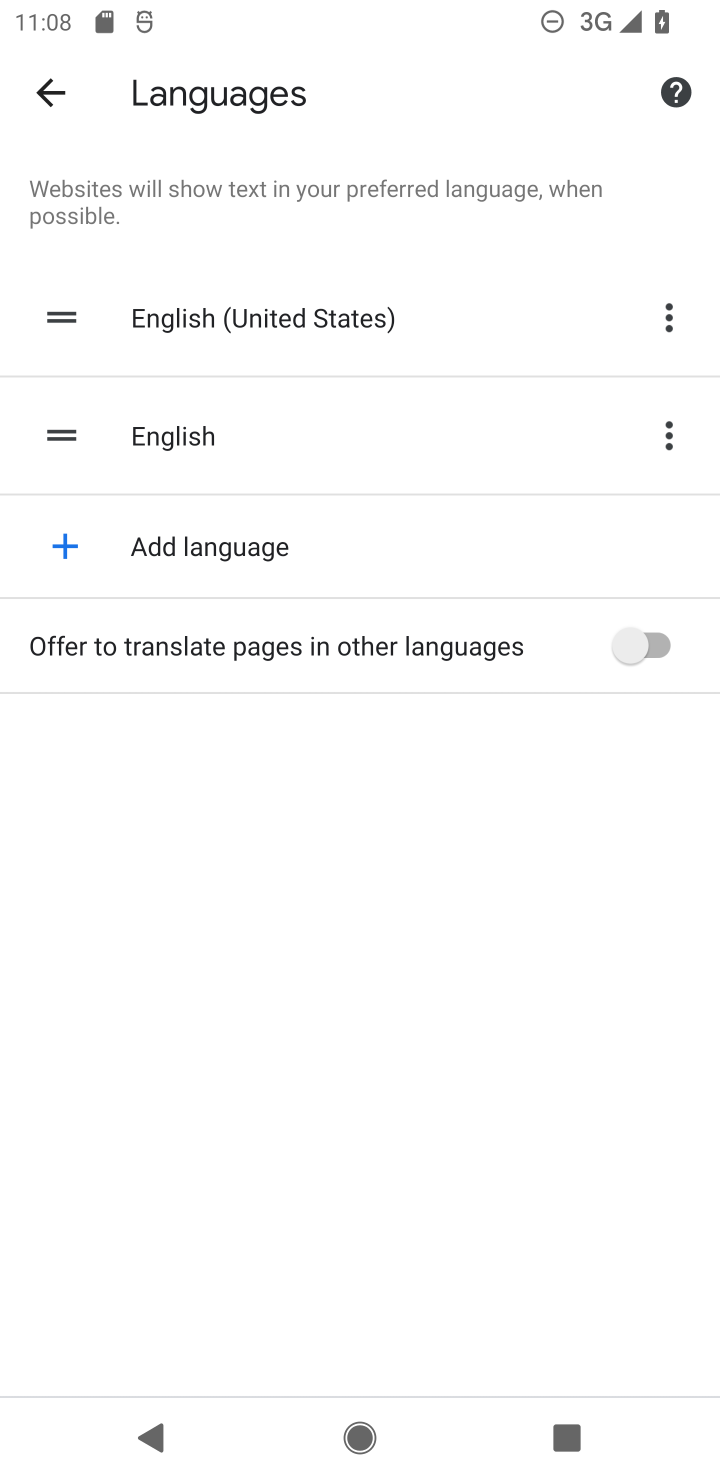
Step 30: task complete